Your task to perform on an android device: Open the map Image 0: 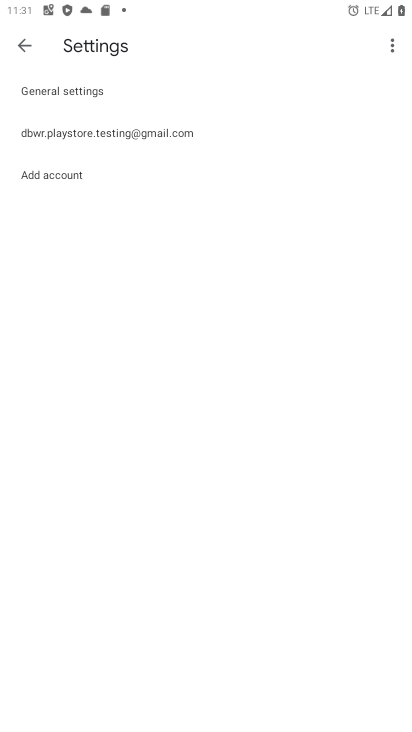
Step 0: press home button
Your task to perform on an android device: Open the map Image 1: 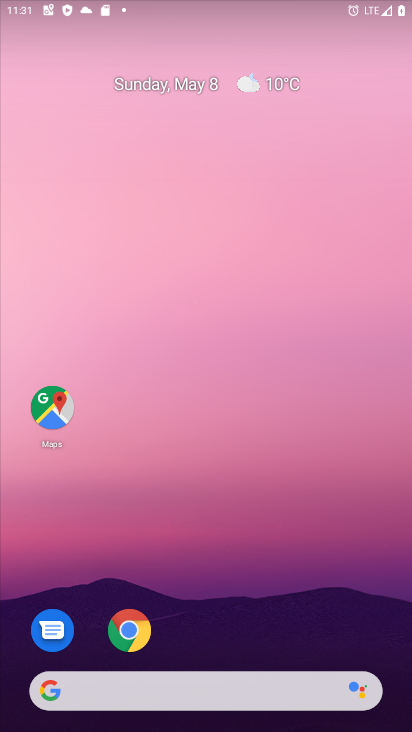
Step 1: drag from (371, 604) to (264, 25)
Your task to perform on an android device: Open the map Image 2: 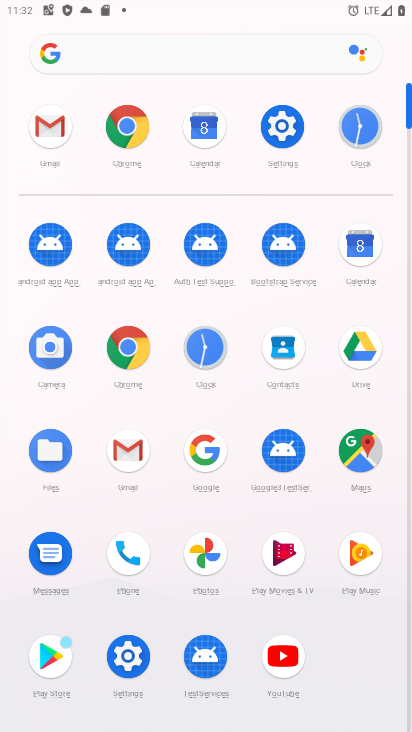
Step 2: click (361, 447)
Your task to perform on an android device: Open the map Image 3: 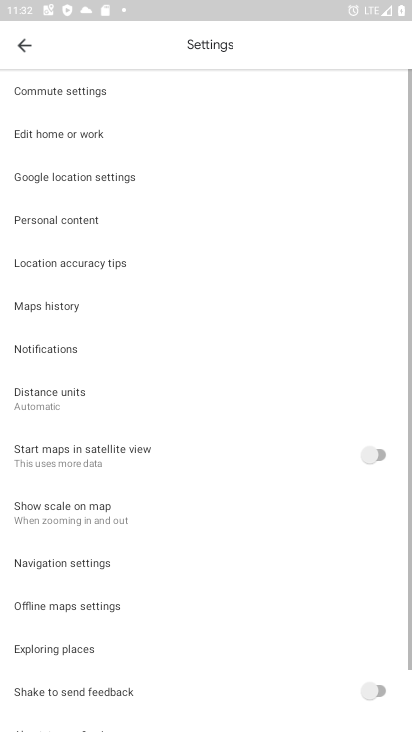
Step 3: task complete